Your task to perform on an android device: turn vacation reply on in the gmail app Image 0: 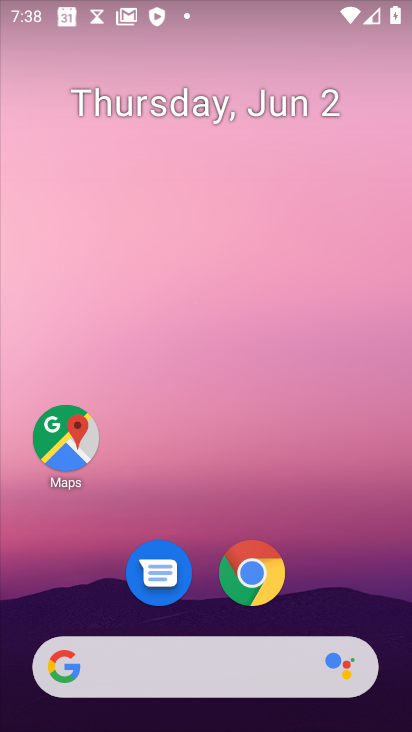
Step 0: drag from (186, 681) to (369, 168)
Your task to perform on an android device: turn vacation reply on in the gmail app Image 1: 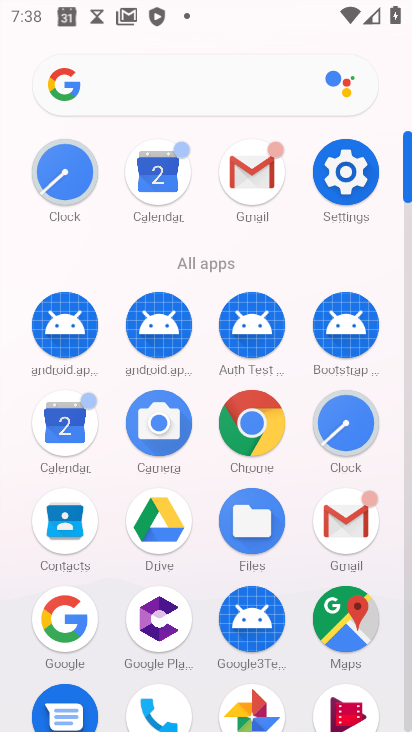
Step 1: click (259, 182)
Your task to perform on an android device: turn vacation reply on in the gmail app Image 2: 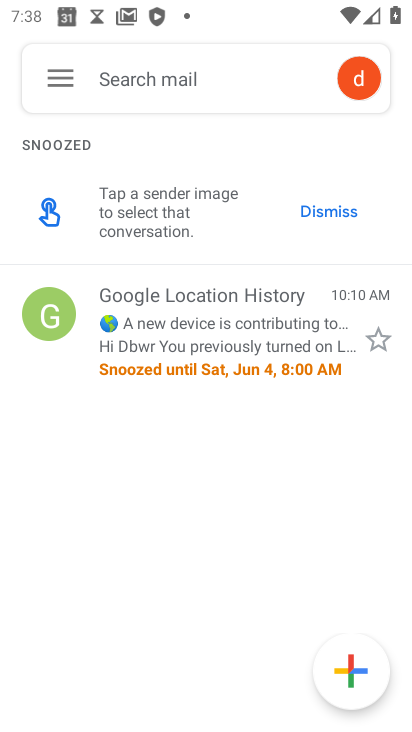
Step 2: click (60, 77)
Your task to perform on an android device: turn vacation reply on in the gmail app Image 3: 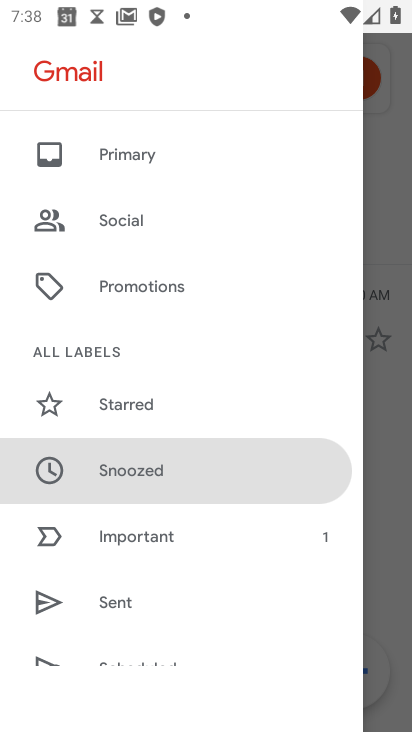
Step 3: drag from (144, 631) to (293, 81)
Your task to perform on an android device: turn vacation reply on in the gmail app Image 4: 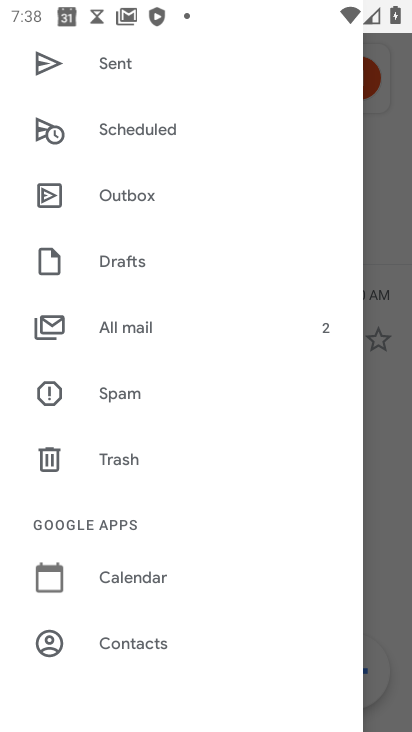
Step 4: drag from (160, 591) to (291, 99)
Your task to perform on an android device: turn vacation reply on in the gmail app Image 5: 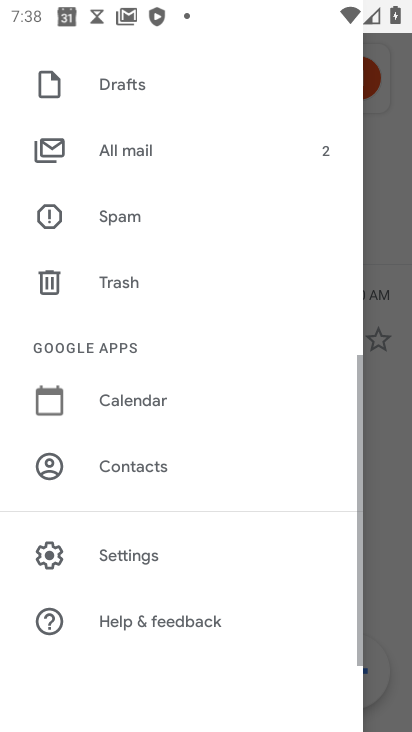
Step 5: click (128, 555)
Your task to perform on an android device: turn vacation reply on in the gmail app Image 6: 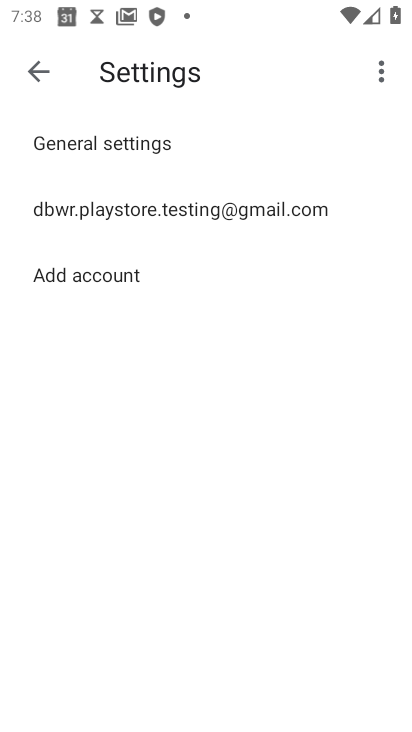
Step 6: click (227, 215)
Your task to perform on an android device: turn vacation reply on in the gmail app Image 7: 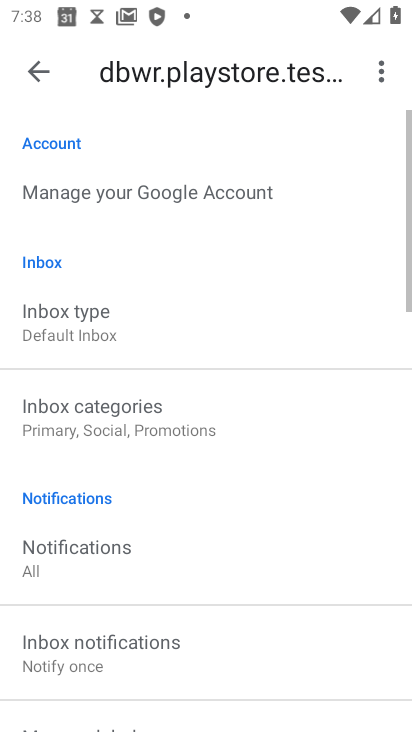
Step 7: drag from (196, 592) to (344, 83)
Your task to perform on an android device: turn vacation reply on in the gmail app Image 8: 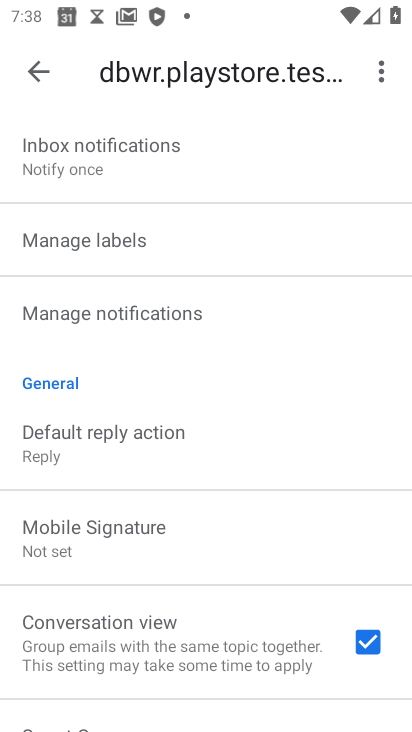
Step 8: drag from (241, 496) to (350, 134)
Your task to perform on an android device: turn vacation reply on in the gmail app Image 9: 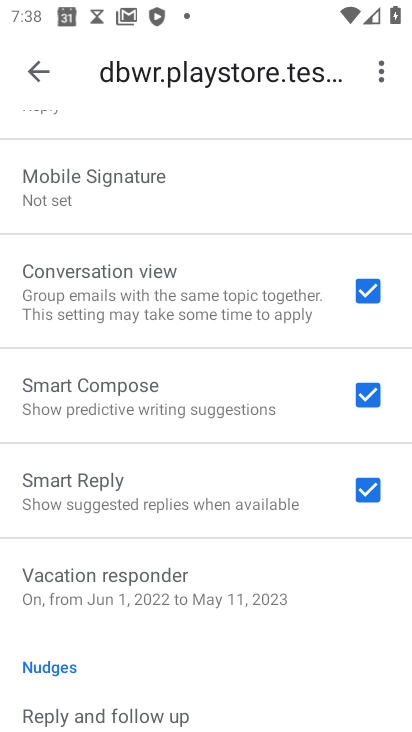
Step 9: click (168, 589)
Your task to perform on an android device: turn vacation reply on in the gmail app Image 10: 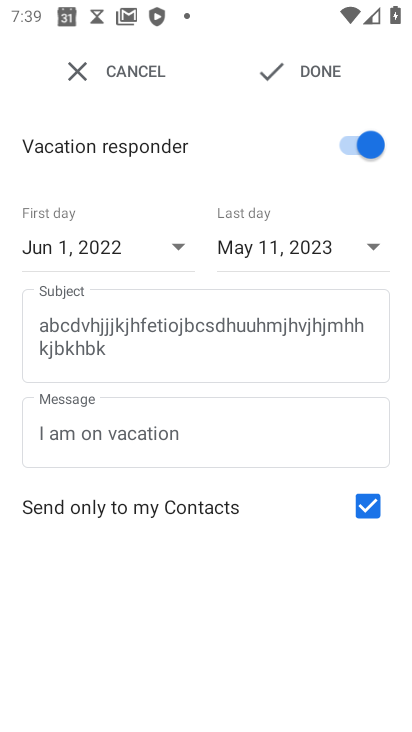
Step 10: task complete